Your task to perform on an android device: What's the weather today? Image 0: 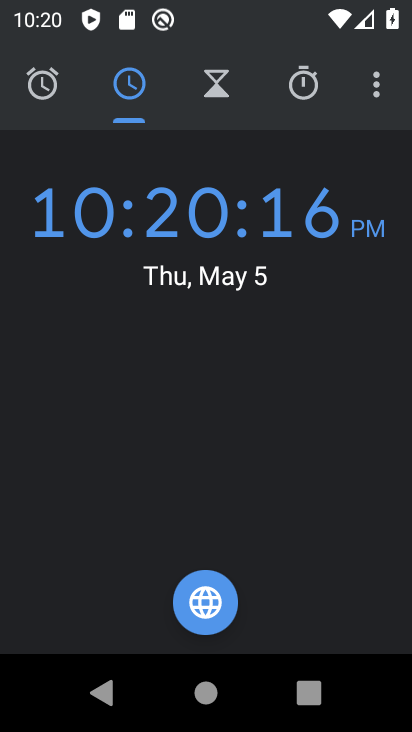
Step 0: press home button
Your task to perform on an android device: What's the weather today? Image 1: 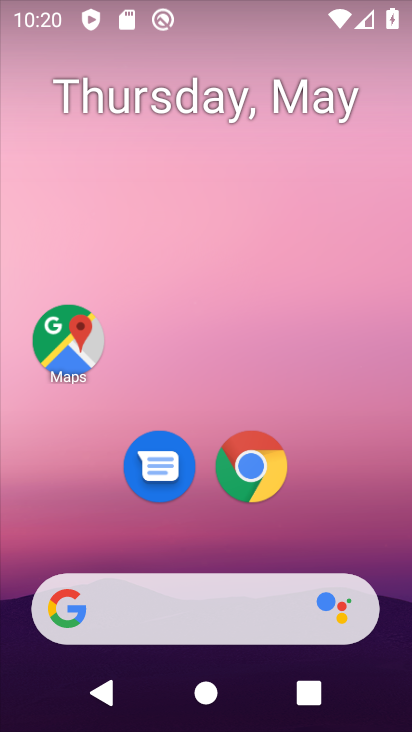
Step 1: click (276, 471)
Your task to perform on an android device: What's the weather today? Image 2: 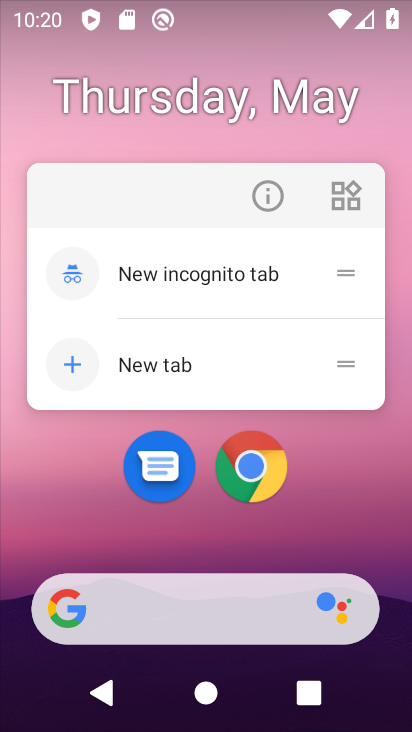
Step 2: click (255, 471)
Your task to perform on an android device: What's the weather today? Image 3: 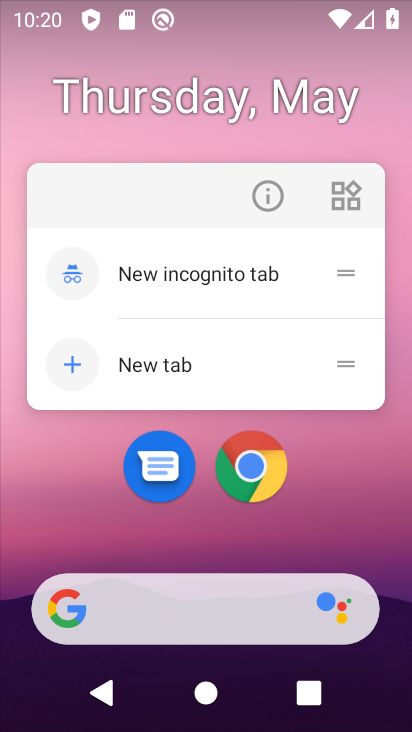
Step 3: click (252, 469)
Your task to perform on an android device: What's the weather today? Image 4: 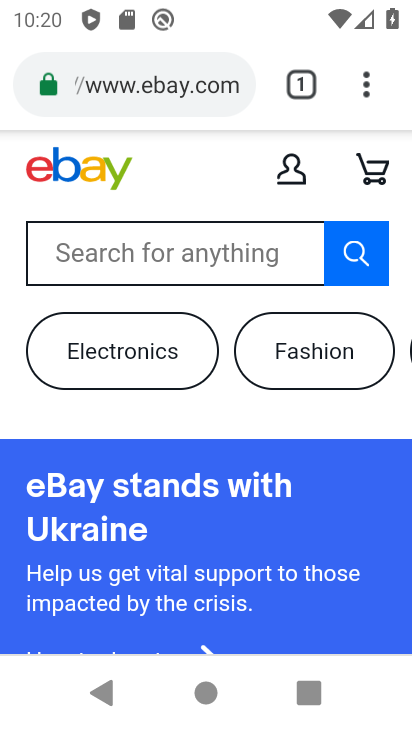
Step 4: click (192, 98)
Your task to perform on an android device: What's the weather today? Image 5: 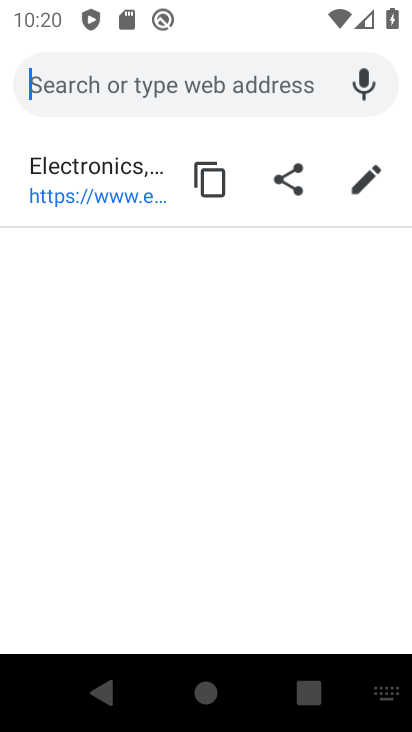
Step 5: type "weather"
Your task to perform on an android device: What's the weather today? Image 6: 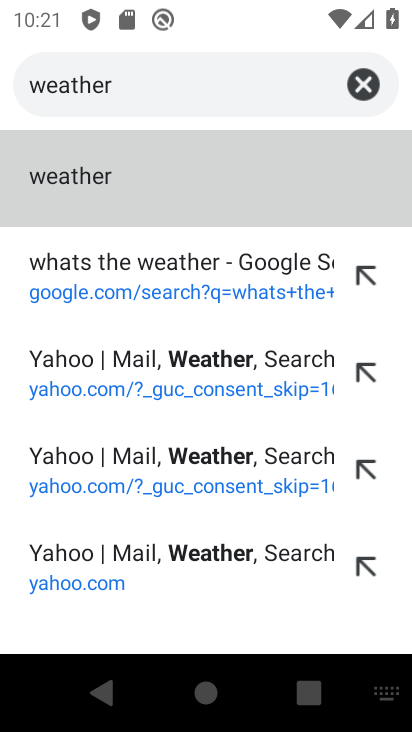
Step 6: click (100, 151)
Your task to perform on an android device: What's the weather today? Image 7: 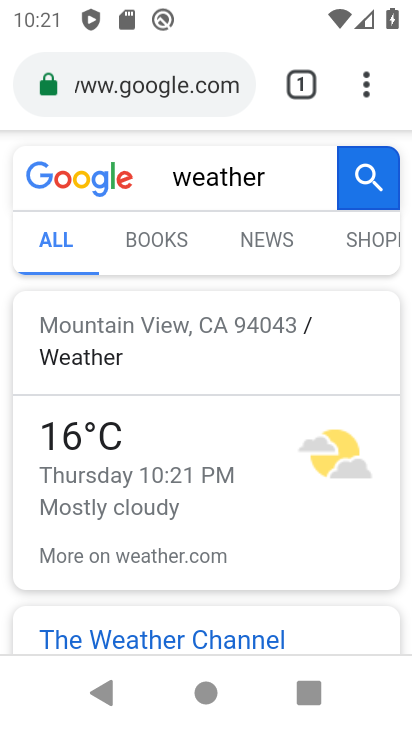
Step 7: task complete